Your task to perform on an android device: change the clock style Image 0: 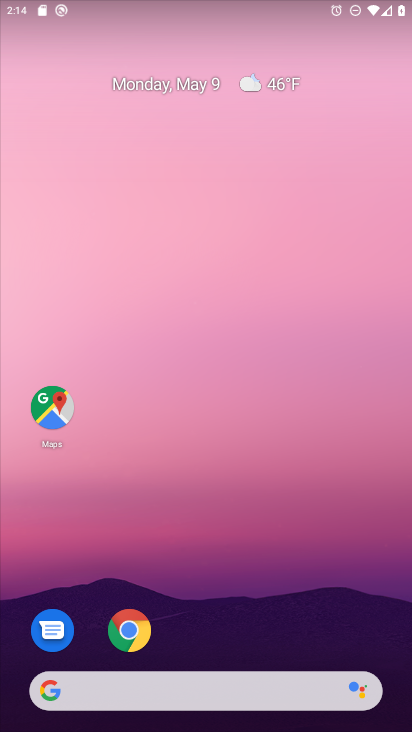
Step 0: drag from (308, 708) to (295, 482)
Your task to perform on an android device: change the clock style Image 1: 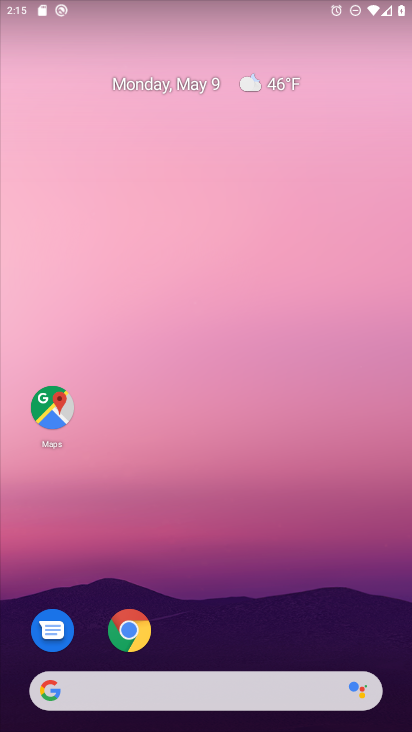
Step 1: drag from (301, 725) to (316, 354)
Your task to perform on an android device: change the clock style Image 2: 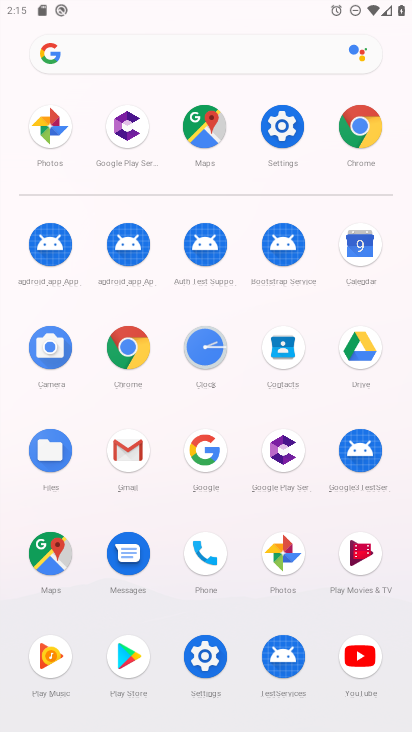
Step 2: click (207, 372)
Your task to perform on an android device: change the clock style Image 3: 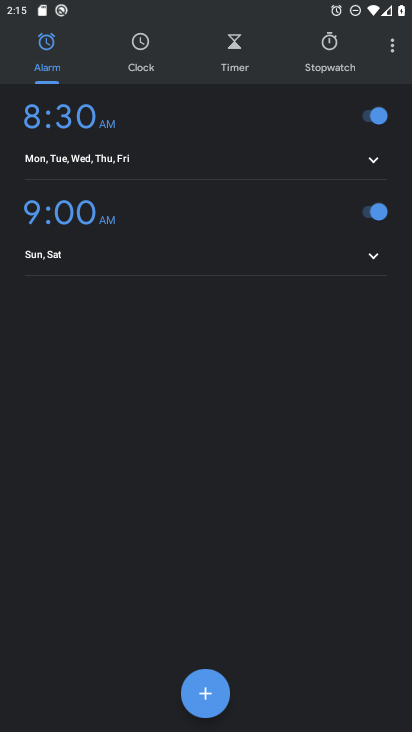
Step 3: click (218, 134)
Your task to perform on an android device: change the clock style Image 4: 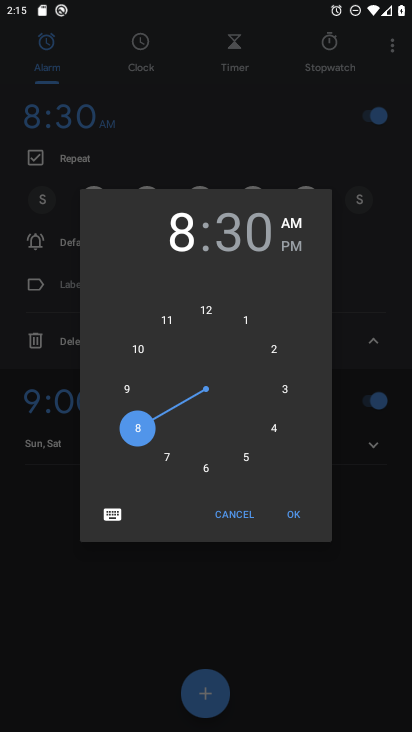
Step 4: click (146, 645)
Your task to perform on an android device: change the clock style Image 5: 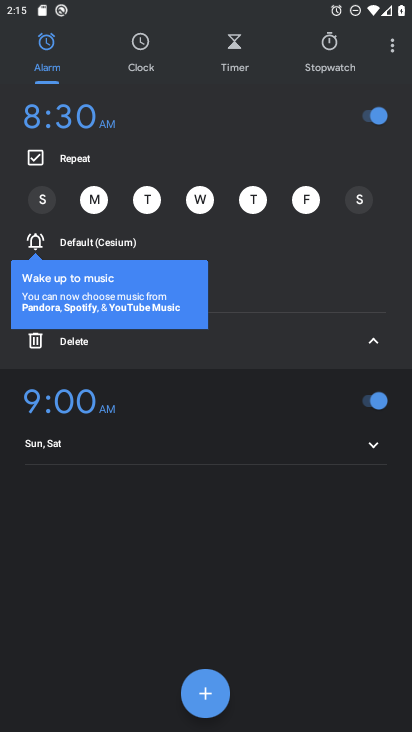
Step 5: click (385, 57)
Your task to perform on an android device: change the clock style Image 6: 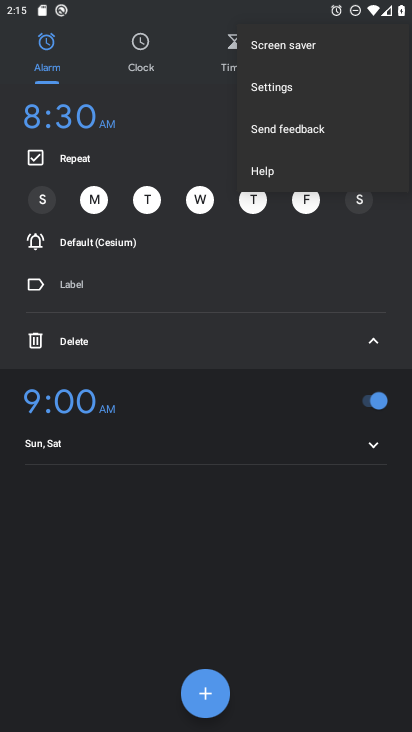
Step 6: click (257, 98)
Your task to perform on an android device: change the clock style Image 7: 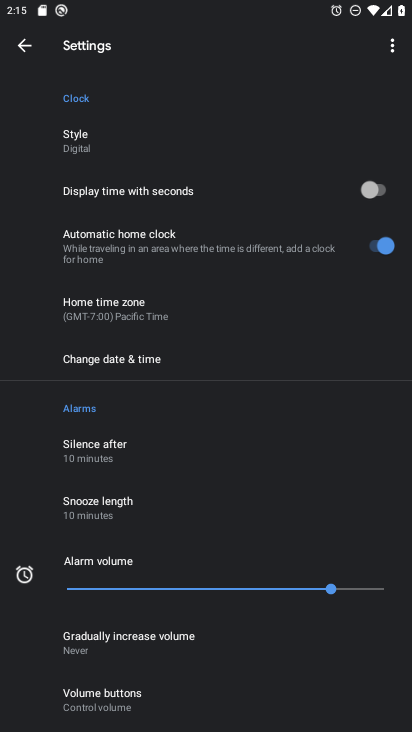
Step 7: click (157, 134)
Your task to perform on an android device: change the clock style Image 8: 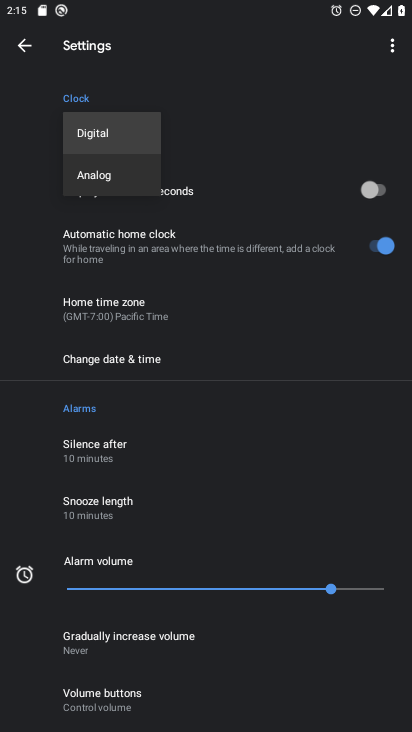
Step 8: click (118, 169)
Your task to perform on an android device: change the clock style Image 9: 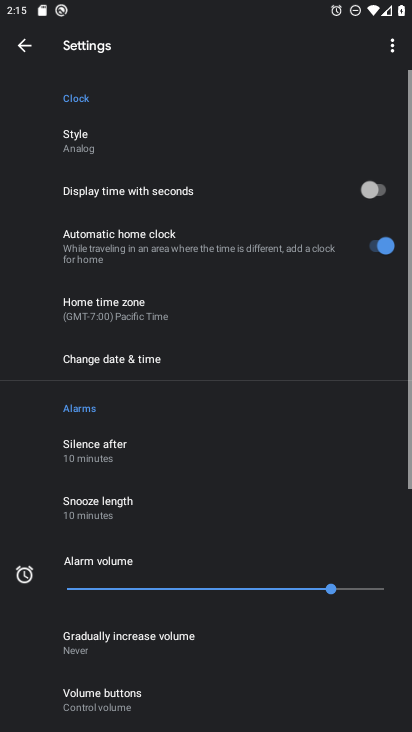
Step 9: task complete